Your task to perform on an android device: Open Google Chrome and open the bookmarks view Image 0: 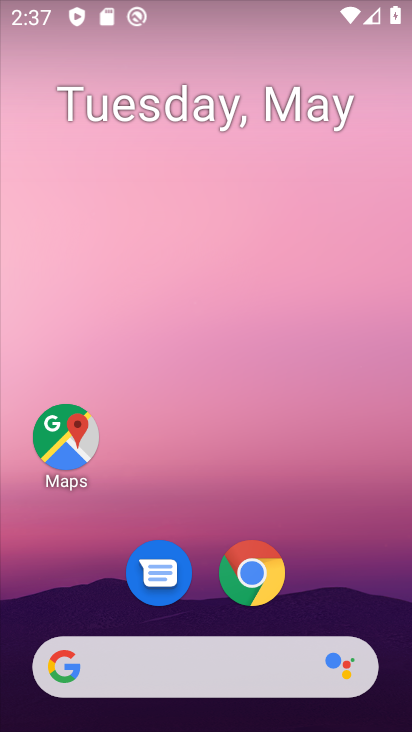
Step 0: click (258, 590)
Your task to perform on an android device: Open Google Chrome and open the bookmarks view Image 1: 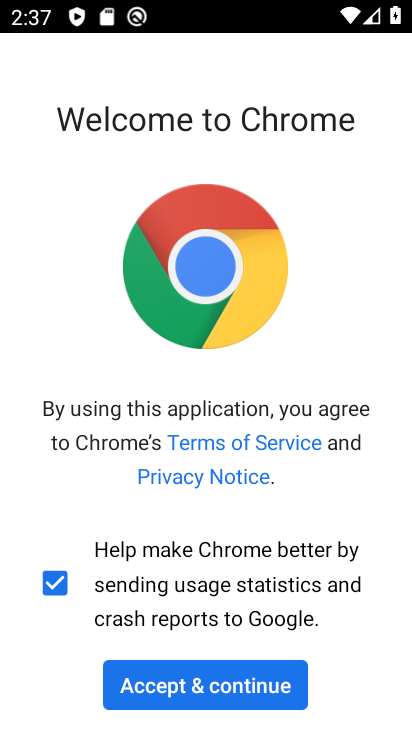
Step 1: click (252, 686)
Your task to perform on an android device: Open Google Chrome and open the bookmarks view Image 2: 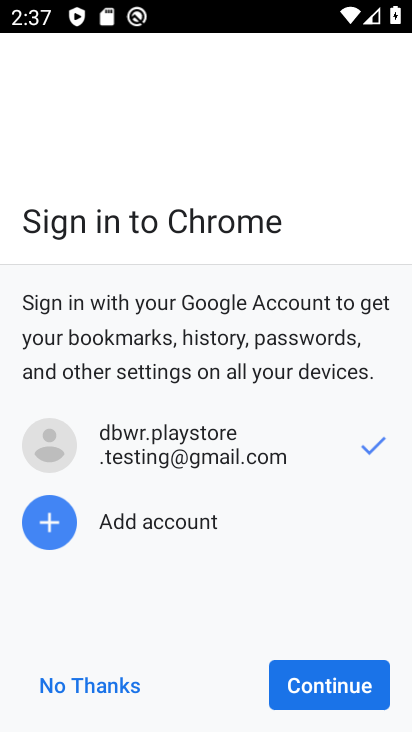
Step 2: click (333, 695)
Your task to perform on an android device: Open Google Chrome and open the bookmarks view Image 3: 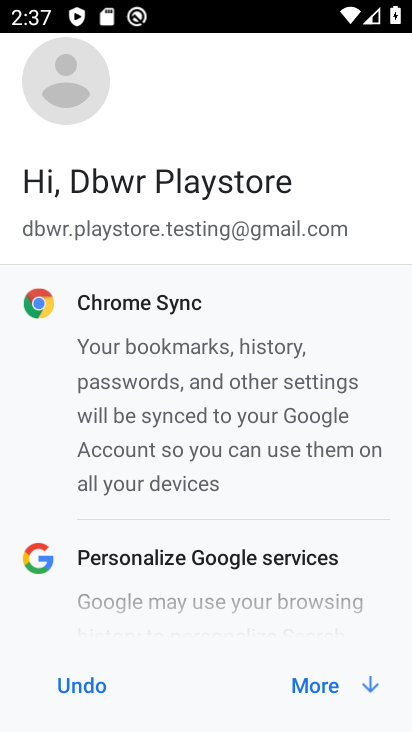
Step 3: click (333, 695)
Your task to perform on an android device: Open Google Chrome and open the bookmarks view Image 4: 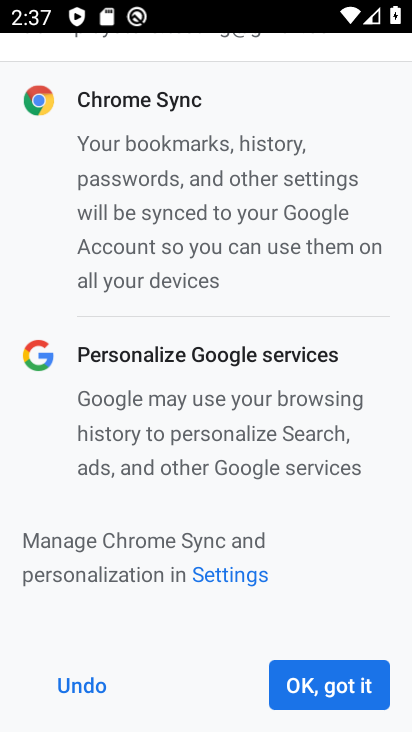
Step 4: click (333, 695)
Your task to perform on an android device: Open Google Chrome and open the bookmarks view Image 5: 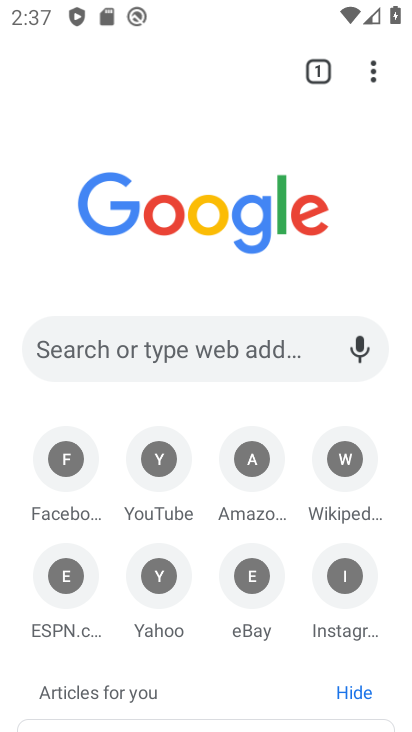
Step 5: task complete